Your task to perform on an android device: Open the calendar and show me this week's events? Image 0: 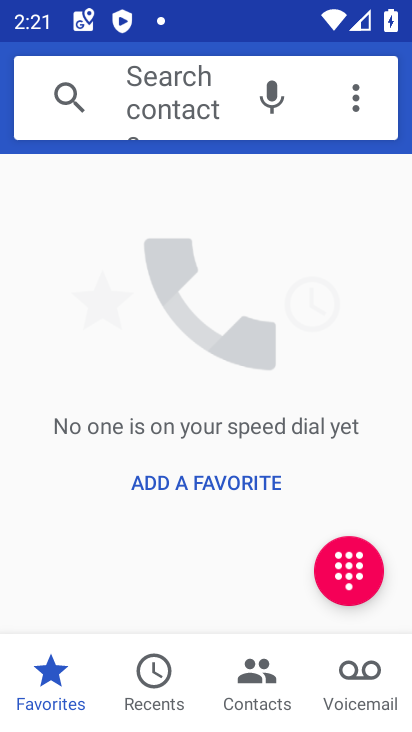
Step 0: press home button
Your task to perform on an android device: Open the calendar and show me this week's events? Image 1: 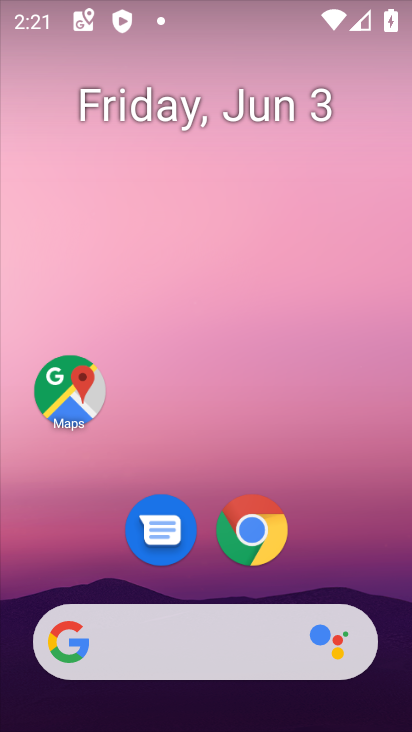
Step 1: drag from (339, 524) to (173, 10)
Your task to perform on an android device: Open the calendar and show me this week's events? Image 2: 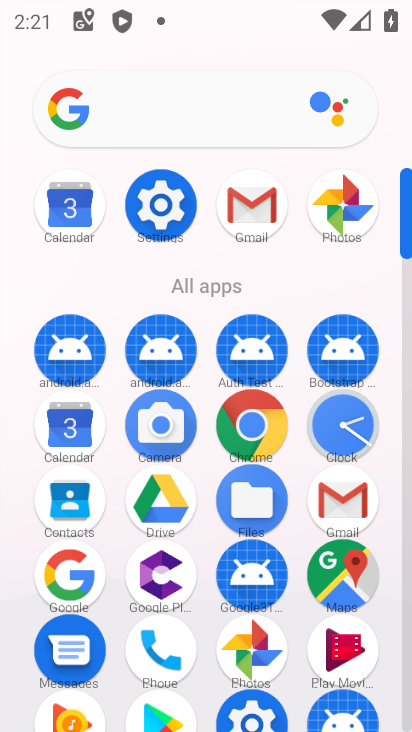
Step 2: click (78, 428)
Your task to perform on an android device: Open the calendar and show me this week's events? Image 3: 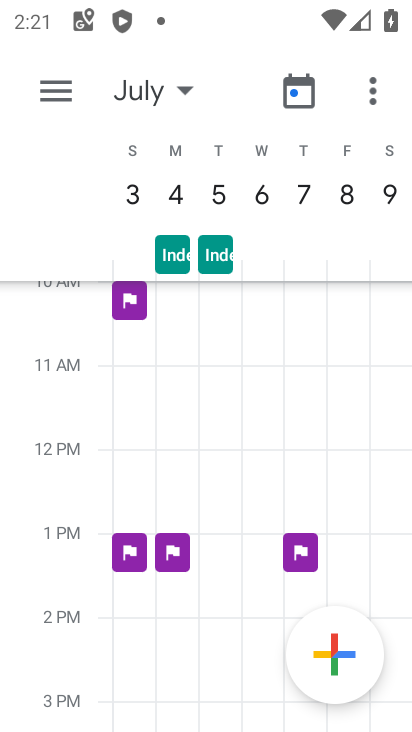
Step 3: click (186, 88)
Your task to perform on an android device: Open the calendar and show me this week's events? Image 4: 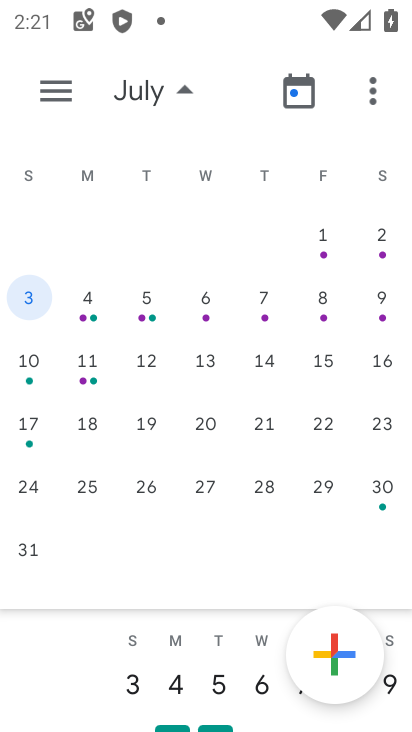
Step 4: drag from (46, 349) to (401, 417)
Your task to perform on an android device: Open the calendar and show me this week's events? Image 5: 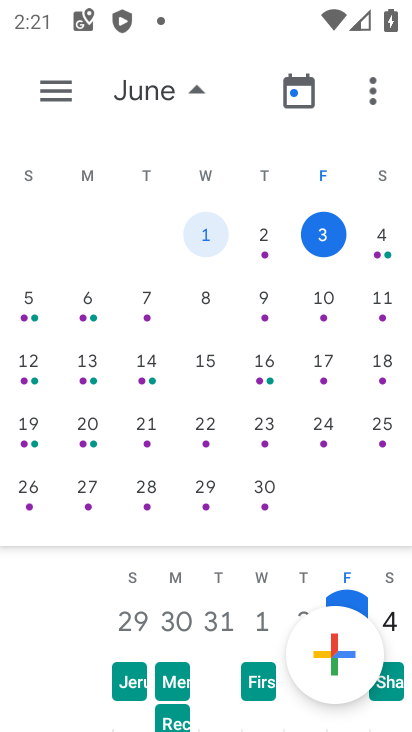
Step 5: click (49, 87)
Your task to perform on an android device: Open the calendar and show me this week's events? Image 6: 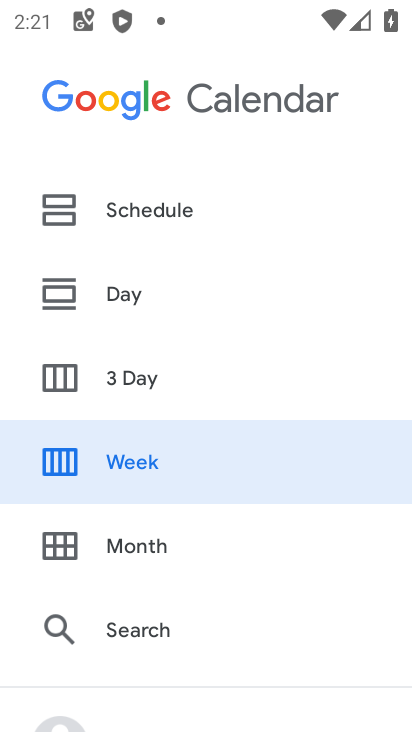
Step 6: click (126, 443)
Your task to perform on an android device: Open the calendar and show me this week's events? Image 7: 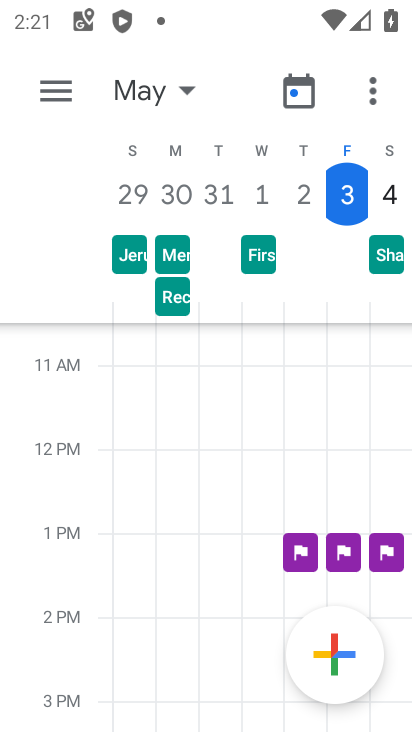
Step 7: task complete